Your task to perform on an android device: allow notifications from all sites in the chrome app Image 0: 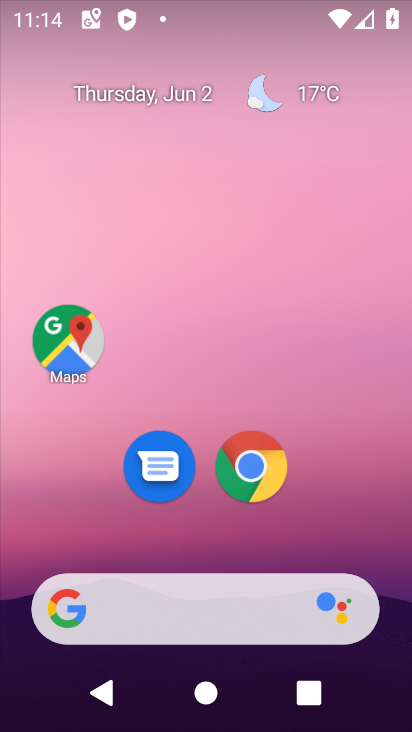
Step 0: drag from (263, 581) to (260, 213)
Your task to perform on an android device: allow notifications from all sites in the chrome app Image 1: 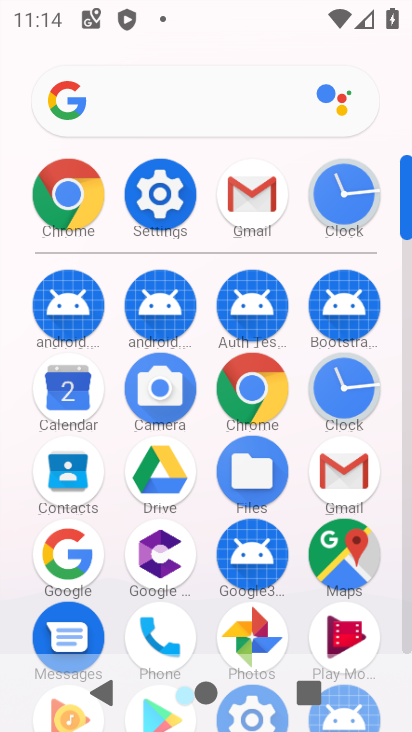
Step 1: click (246, 393)
Your task to perform on an android device: allow notifications from all sites in the chrome app Image 2: 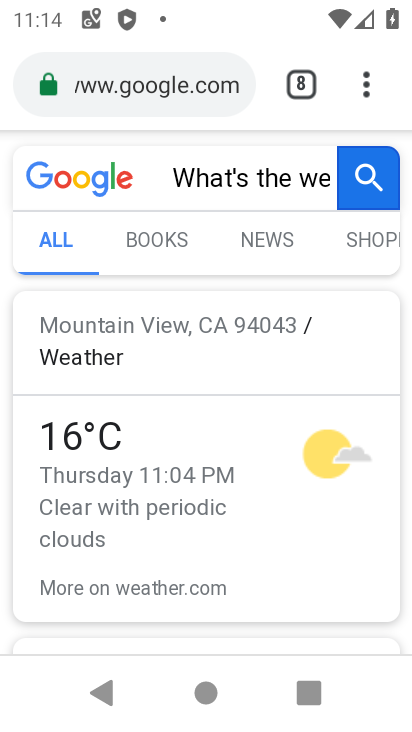
Step 2: click (376, 66)
Your task to perform on an android device: allow notifications from all sites in the chrome app Image 3: 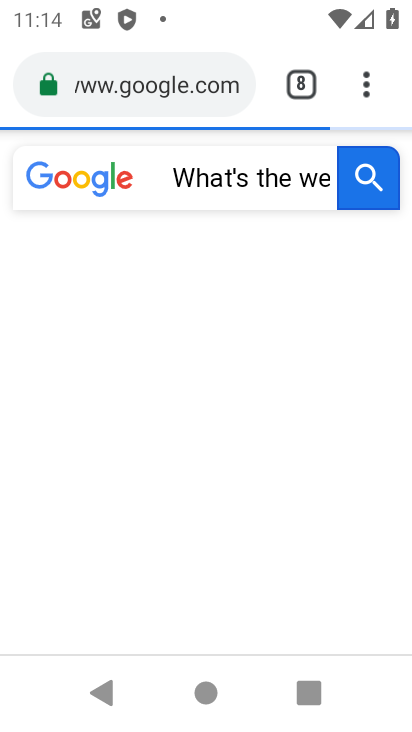
Step 3: click (373, 75)
Your task to perform on an android device: allow notifications from all sites in the chrome app Image 4: 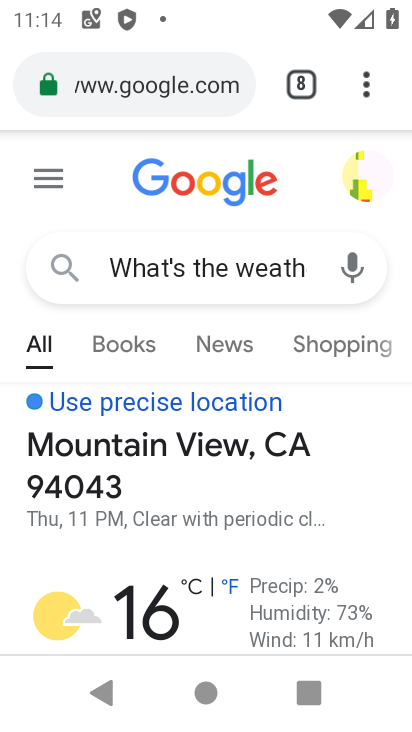
Step 4: click (365, 94)
Your task to perform on an android device: allow notifications from all sites in the chrome app Image 5: 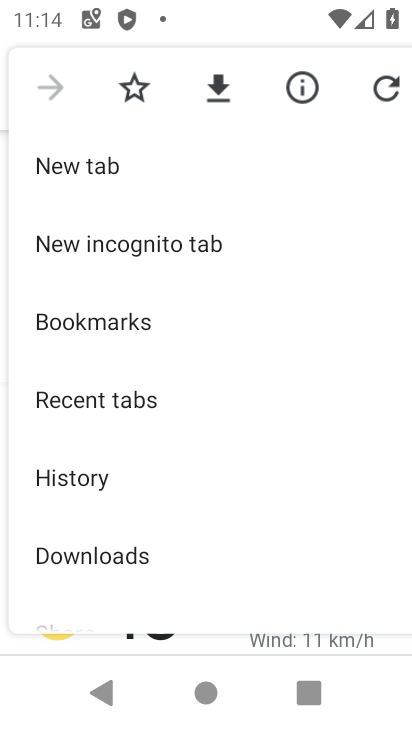
Step 5: drag from (120, 570) to (183, 202)
Your task to perform on an android device: allow notifications from all sites in the chrome app Image 6: 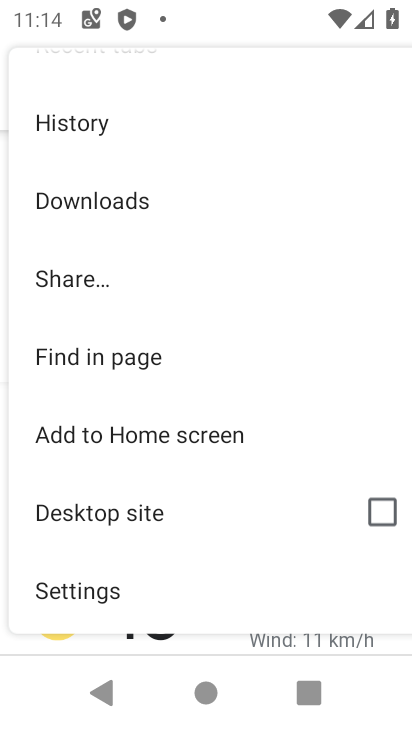
Step 6: drag from (88, 542) to (155, 332)
Your task to perform on an android device: allow notifications from all sites in the chrome app Image 7: 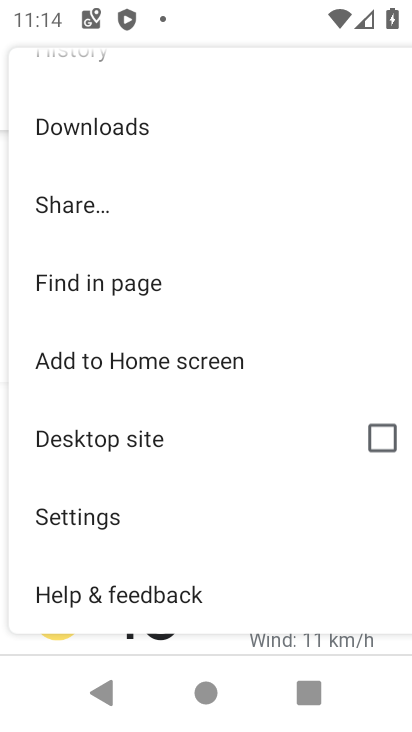
Step 7: click (83, 520)
Your task to perform on an android device: allow notifications from all sites in the chrome app Image 8: 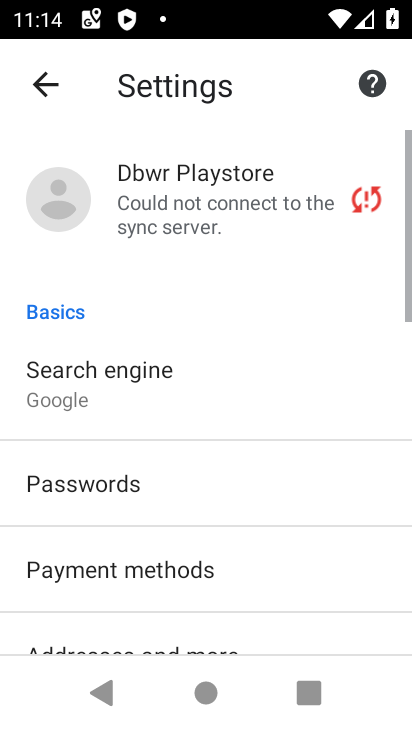
Step 8: drag from (144, 578) to (201, 290)
Your task to perform on an android device: allow notifications from all sites in the chrome app Image 9: 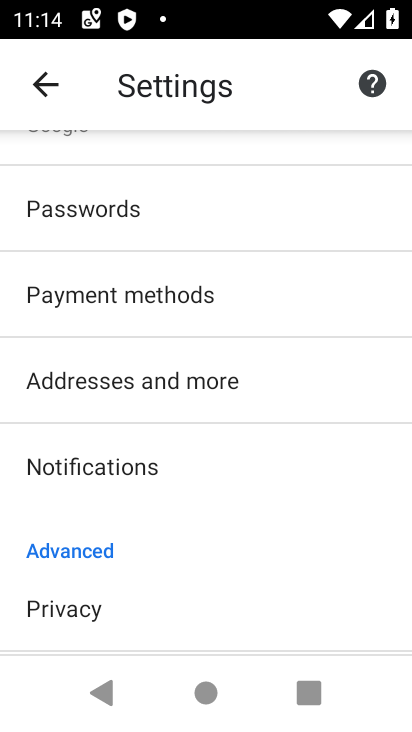
Step 9: drag from (122, 548) to (186, 242)
Your task to perform on an android device: allow notifications from all sites in the chrome app Image 10: 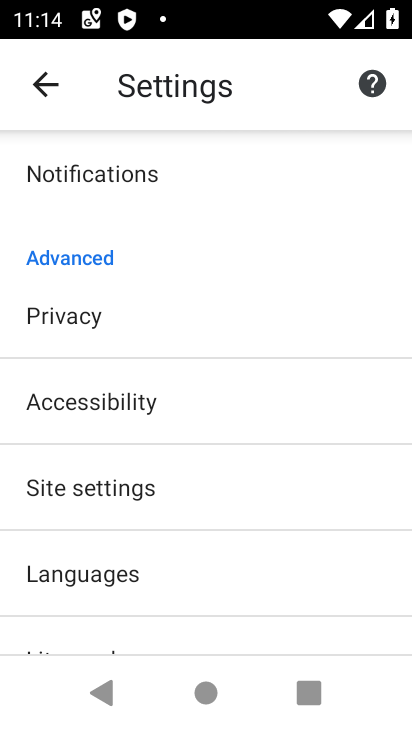
Step 10: drag from (113, 524) to (163, 309)
Your task to perform on an android device: allow notifications from all sites in the chrome app Image 11: 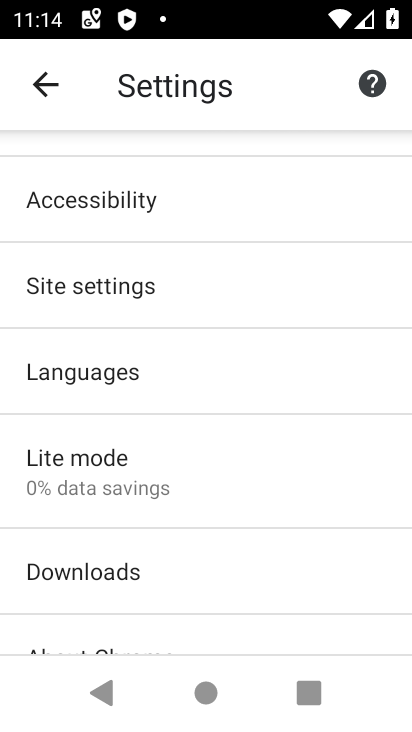
Step 11: click (149, 294)
Your task to perform on an android device: allow notifications from all sites in the chrome app Image 12: 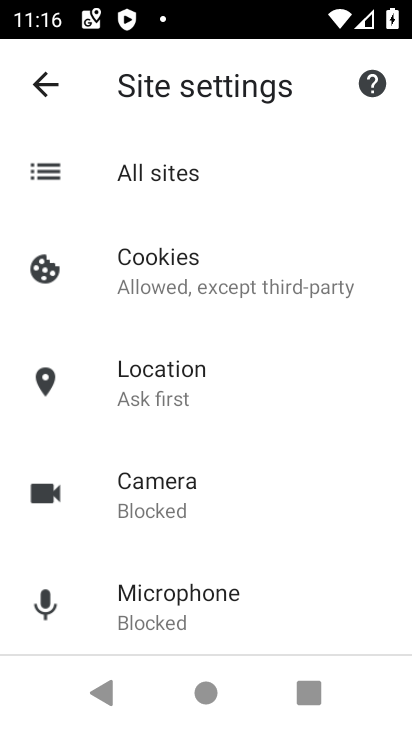
Step 12: task complete